Your task to perform on an android device: toggle translation in the chrome app Image 0: 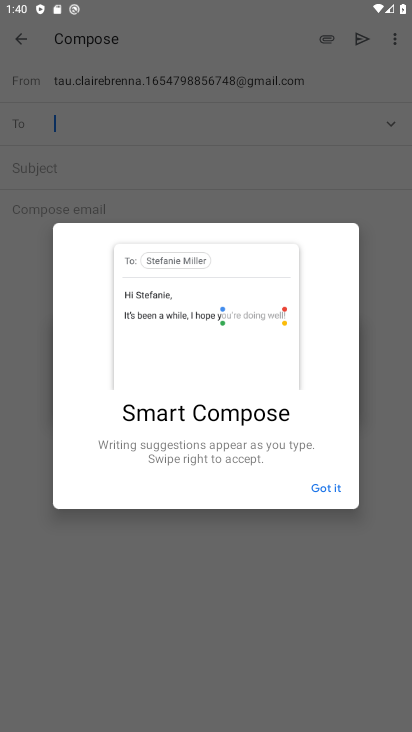
Step 0: press home button
Your task to perform on an android device: toggle translation in the chrome app Image 1: 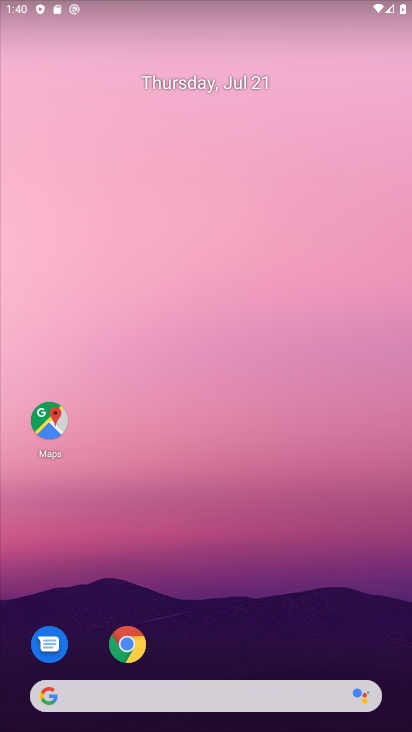
Step 1: click (129, 644)
Your task to perform on an android device: toggle translation in the chrome app Image 2: 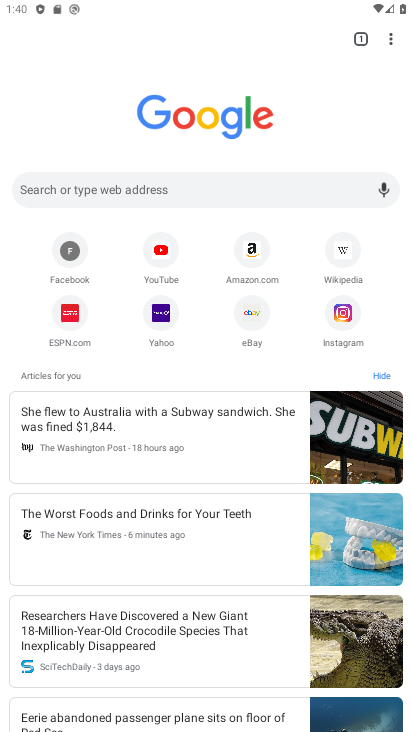
Step 2: click (394, 36)
Your task to perform on an android device: toggle translation in the chrome app Image 3: 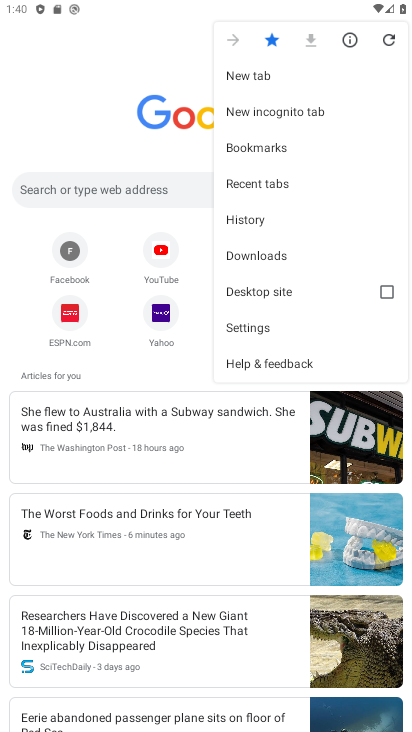
Step 3: click (249, 328)
Your task to perform on an android device: toggle translation in the chrome app Image 4: 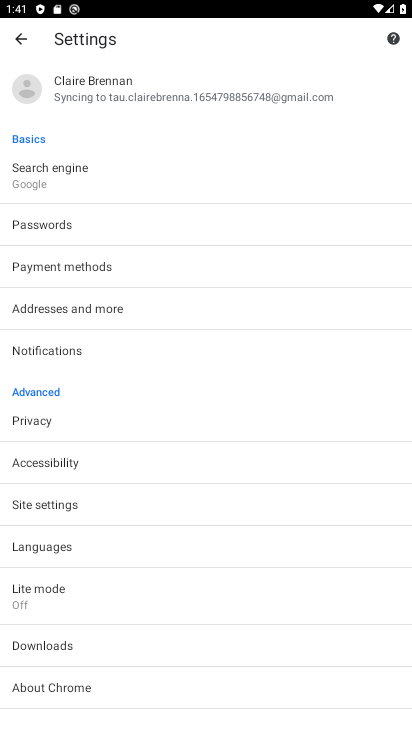
Step 4: click (55, 547)
Your task to perform on an android device: toggle translation in the chrome app Image 5: 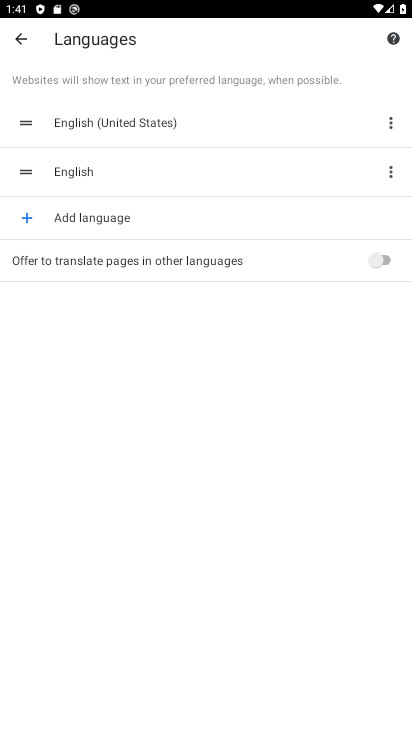
Step 5: click (368, 261)
Your task to perform on an android device: toggle translation in the chrome app Image 6: 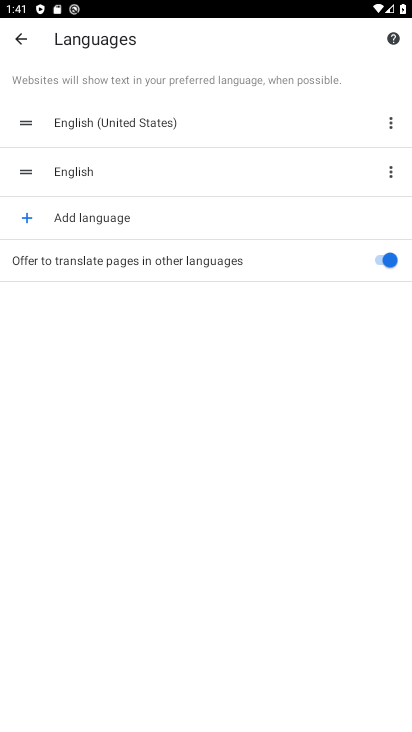
Step 6: task complete